Your task to perform on an android device: turn on priority inbox in the gmail app Image 0: 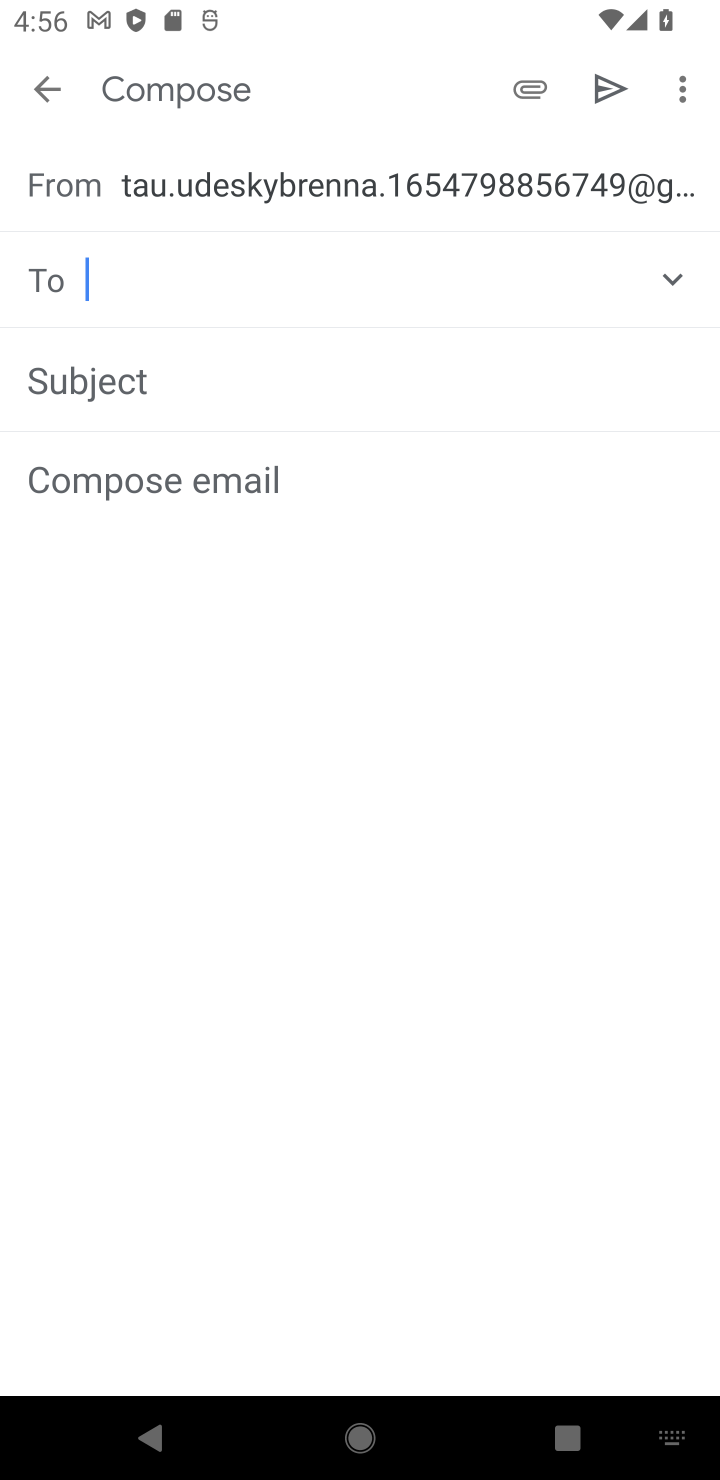
Step 0: press home button
Your task to perform on an android device: turn on priority inbox in the gmail app Image 1: 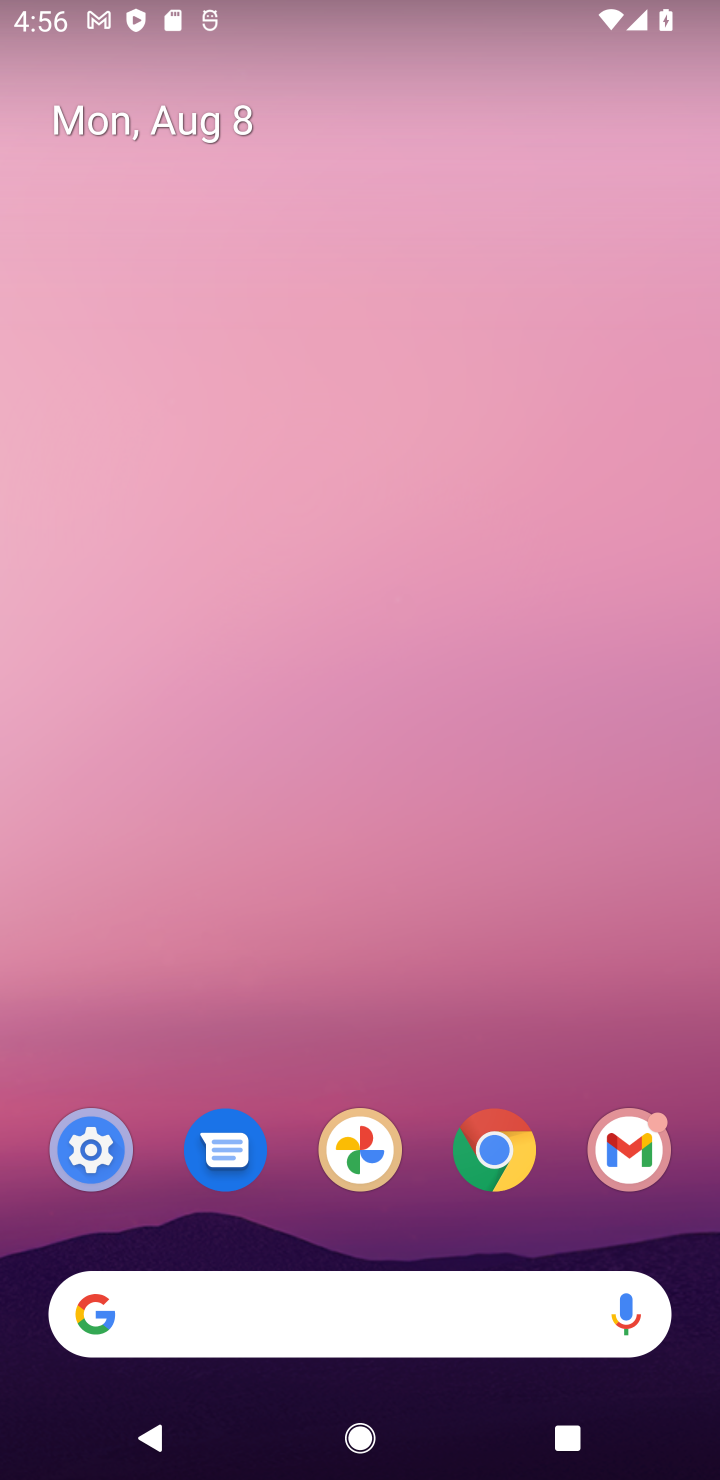
Step 1: drag from (440, 1242) to (500, 183)
Your task to perform on an android device: turn on priority inbox in the gmail app Image 2: 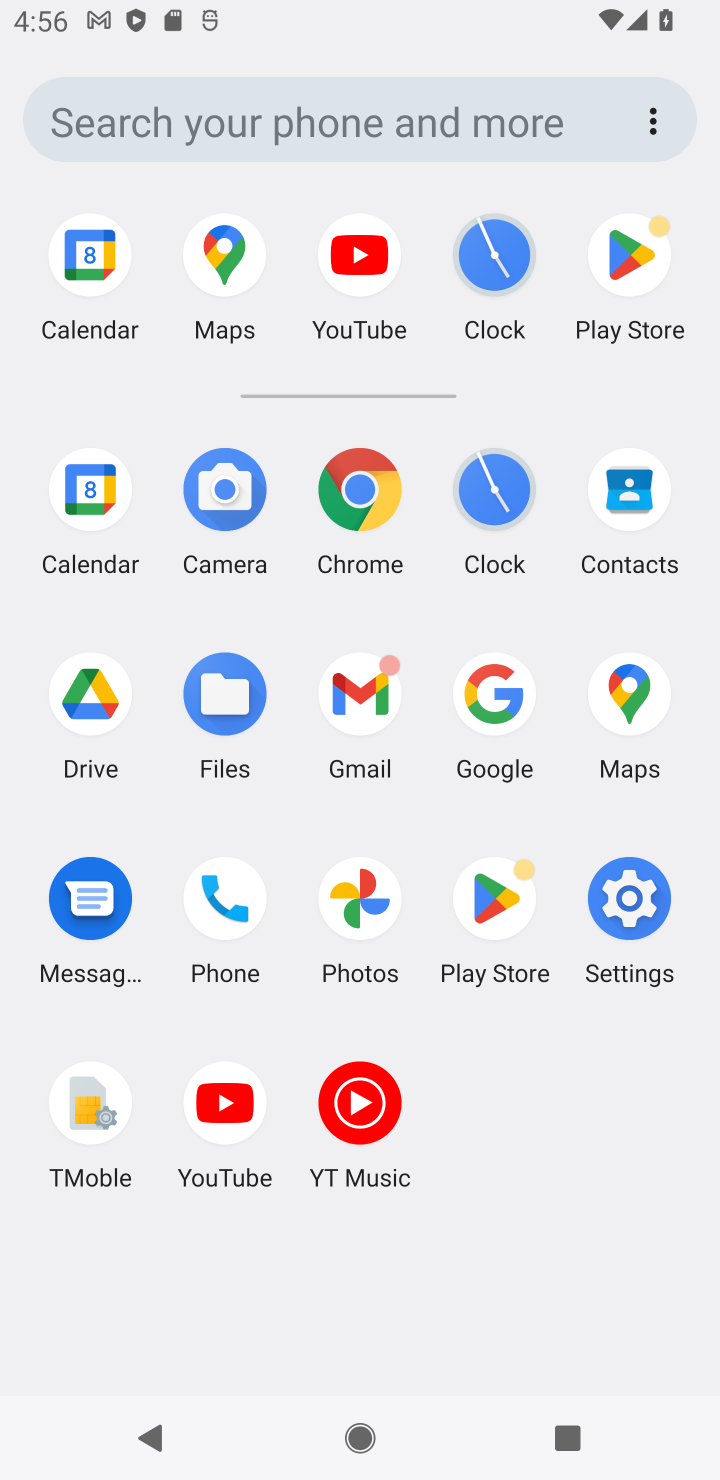
Step 2: click (409, 708)
Your task to perform on an android device: turn on priority inbox in the gmail app Image 3: 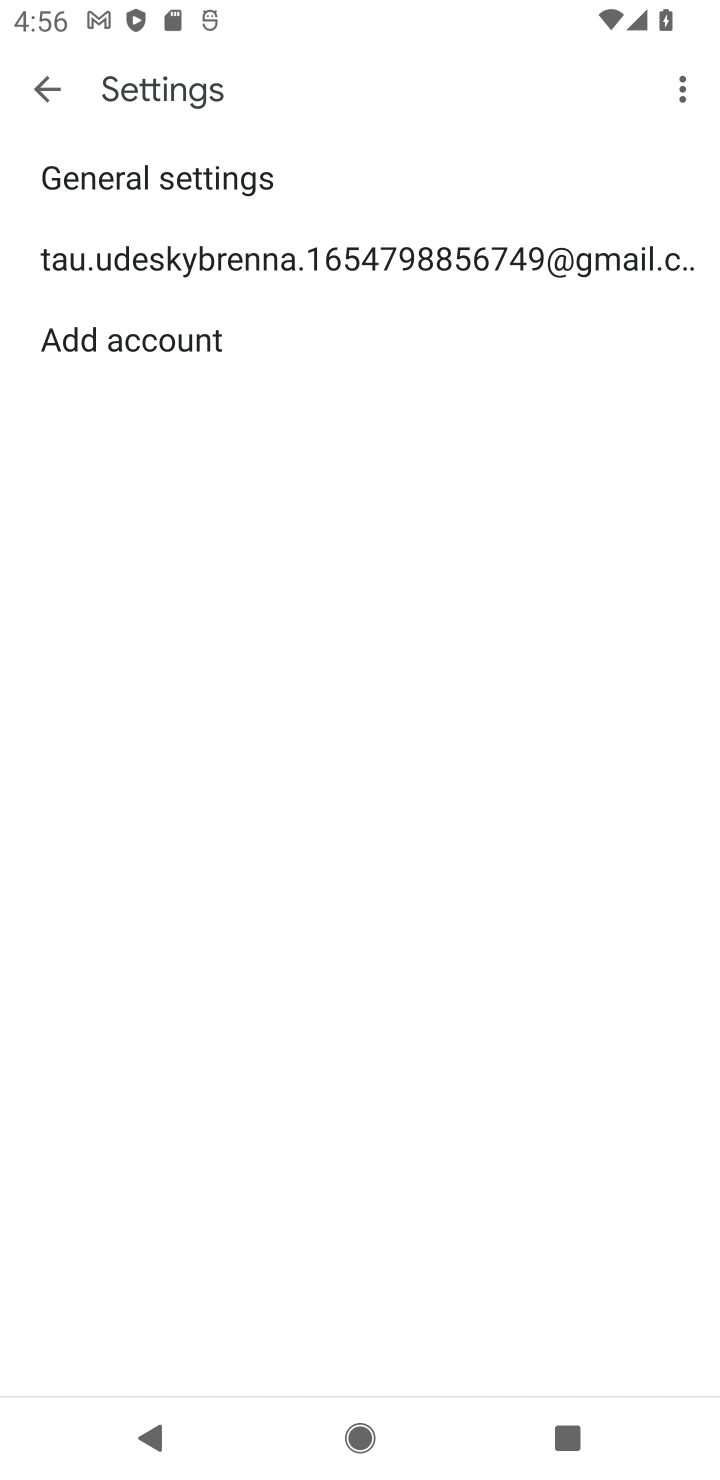
Step 3: task complete